Your task to perform on an android device: turn notification dots on Image 0: 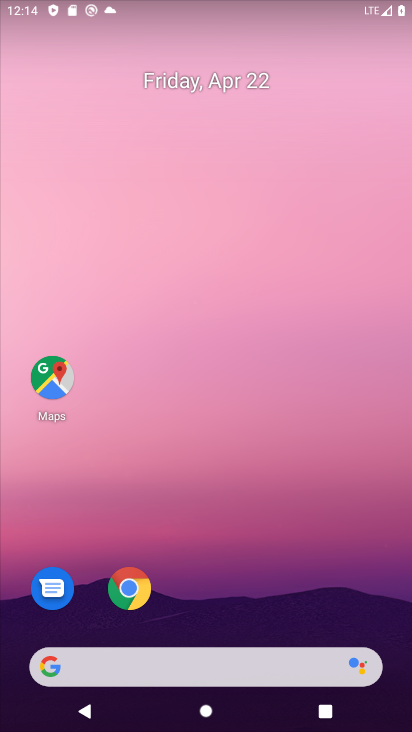
Step 0: drag from (293, 686) to (302, 214)
Your task to perform on an android device: turn notification dots on Image 1: 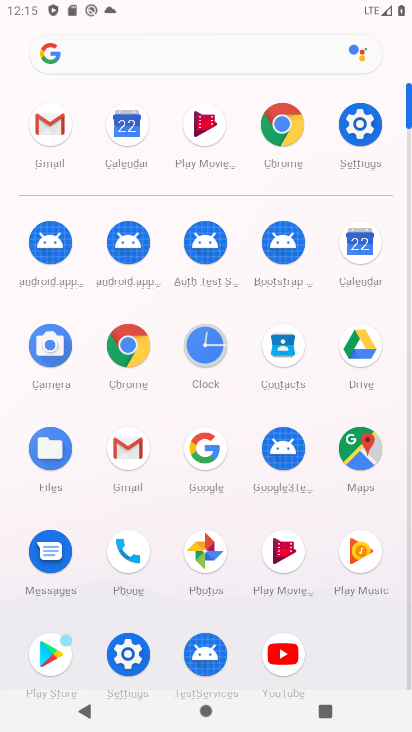
Step 1: click (366, 133)
Your task to perform on an android device: turn notification dots on Image 2: 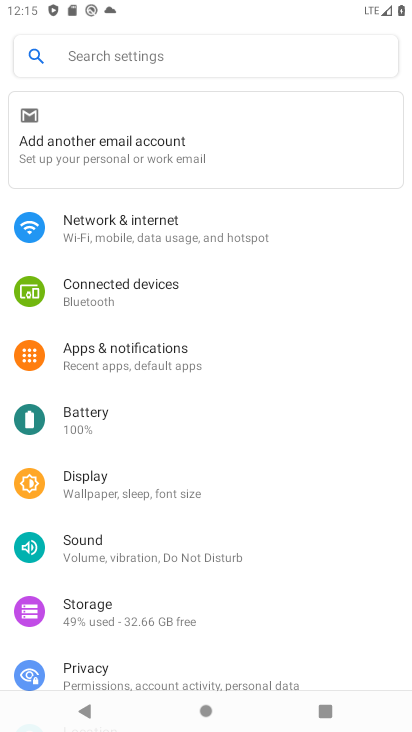
Step 2: click (181, 66)
Your task to perform on an android device: turn notification dots on Image 3: 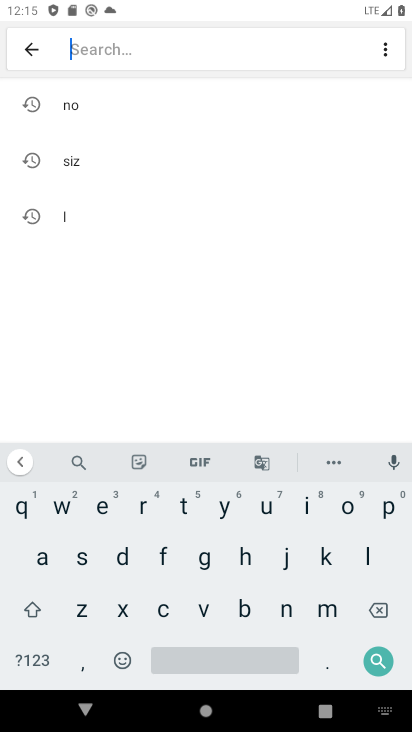
Step 3: click (123, 551)
Your task to perform on an android device: turn notification dots on Image 4: 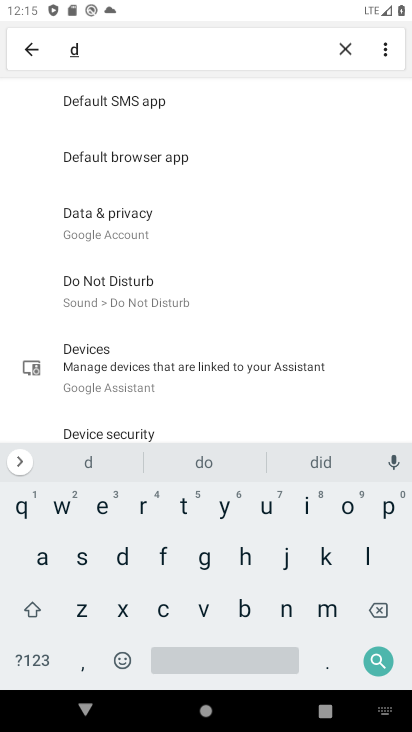
Step 4: click (341, 505)
Your task to perform on an android device: turn notification dots on Image 5: 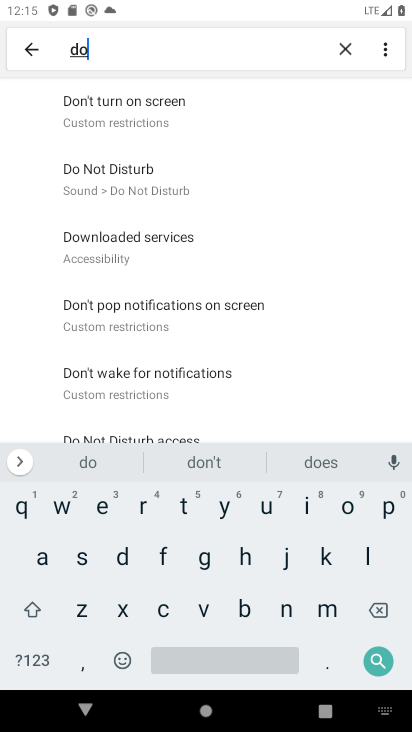
Step 5: click (185, 512)
Your task to perform on an android device: turn notification dots on Image 6: 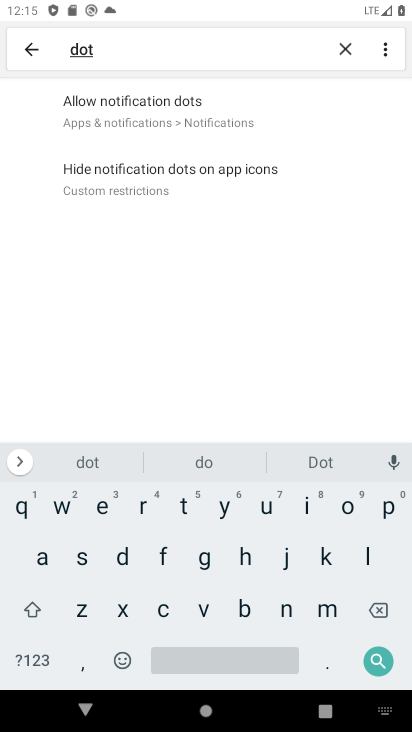
Step 6: click (189, 130)
Your task to perform on an android device: turn notification dots on Image 7: 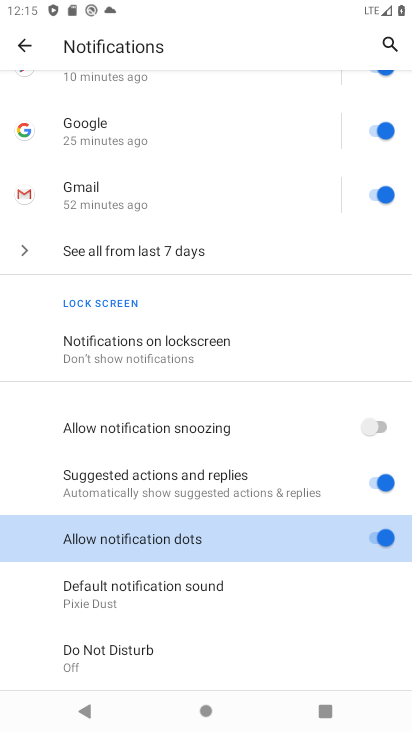
Step 7: click (169, 525)
Your task to perform on an android device: turn notification dots on Image 8: 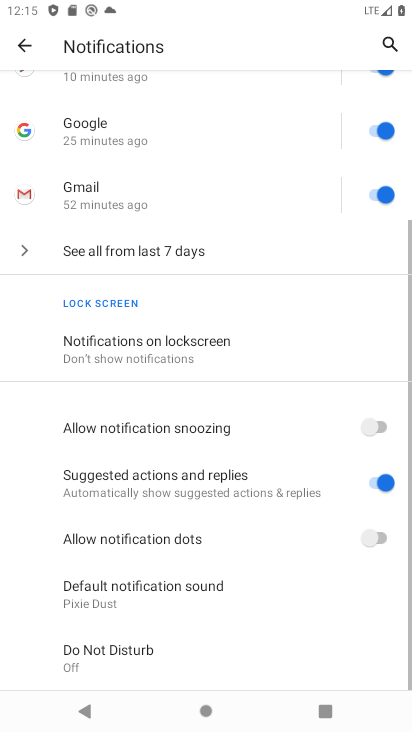
Step 8: click (169, 525)
Your task to perform on an android device: turn notification dots on Image 9: 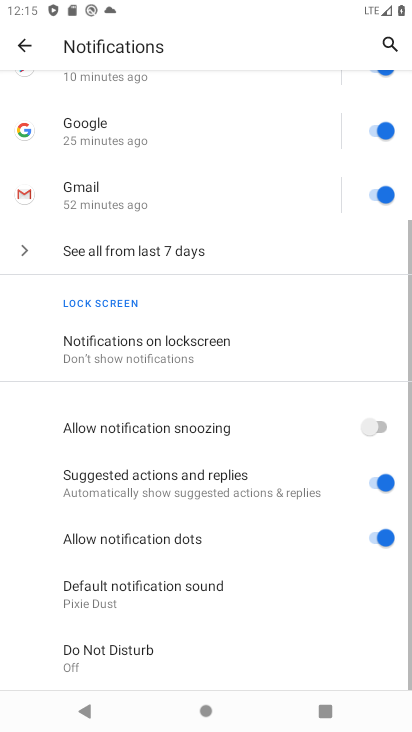
Step 9: task complete